Your task to perform on an android device: Search for pizza restaurants on Maps Image 0: 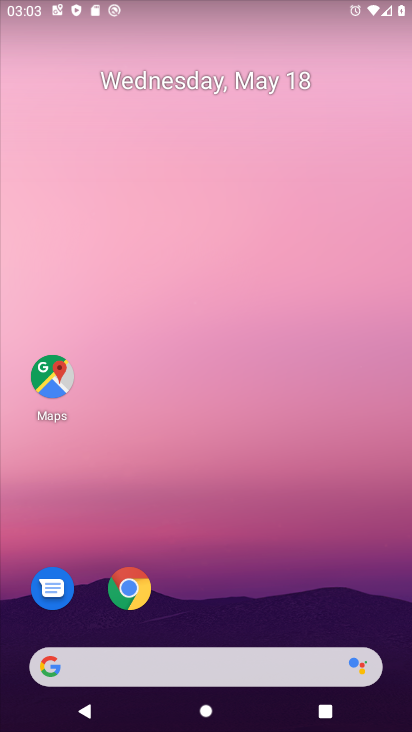
Step 0: click (44, 381)
Your task to perform on an android device: Search for pizza restaurants on Maps Image 1: 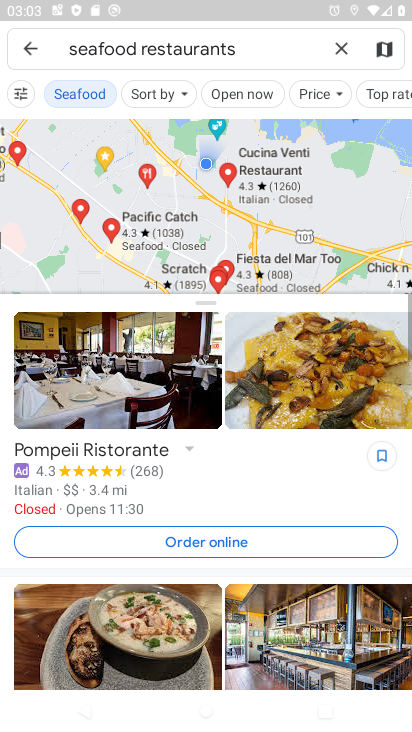
Step 1: click (339, 48)
Your task to perform on an android device: Search for pizza restaurants on Maps Image 2: 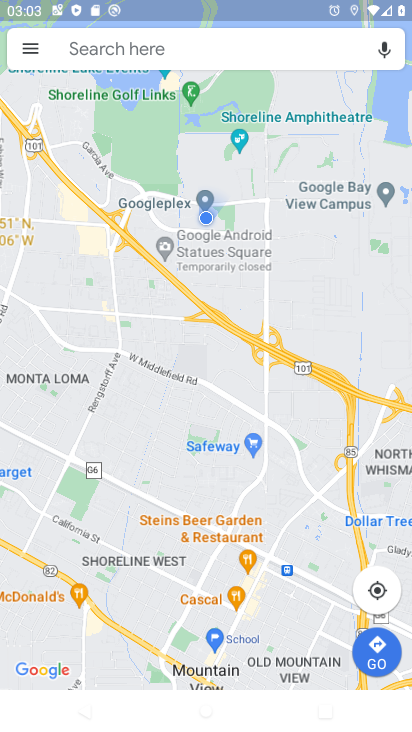
Step 2: click (143, 48)
Your task to perform on an android device: Search for pizza restaurants on Maps Image 3: 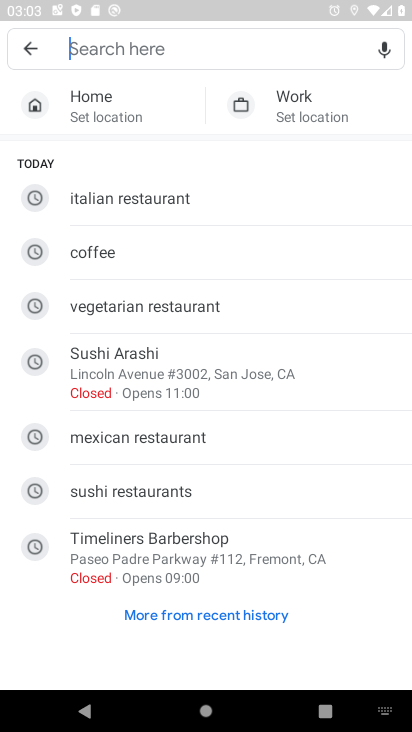
Step 3: click (163, 53)
Your task to perform on an android device: Search for pizza restaurants on Maps Image 4: 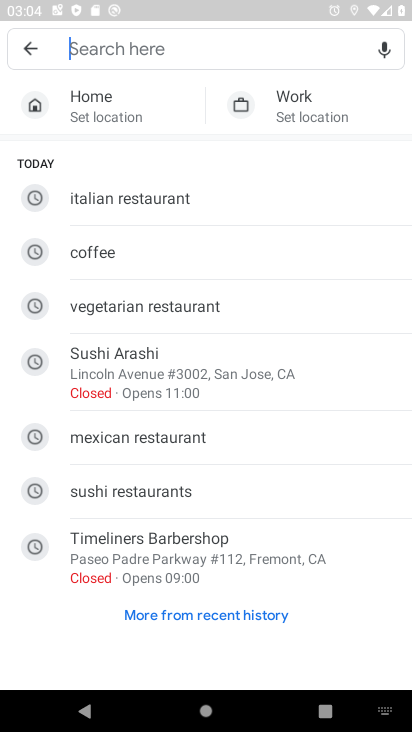
Step 4: type "pizza restaurants"
Your task to perform on an android device: Search for pizza restaurants on Maps Image 5: 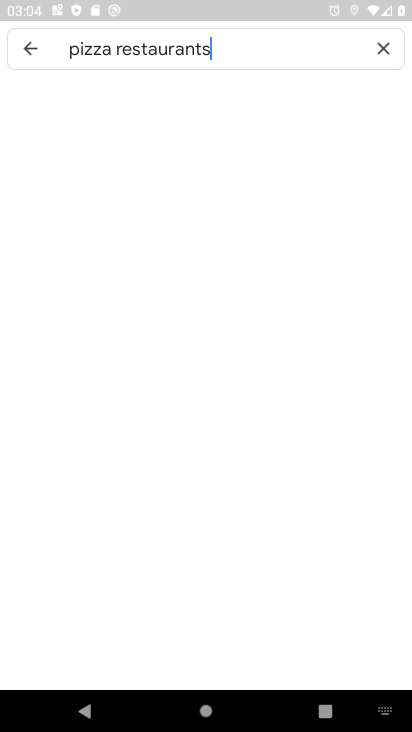
Step 5: type ""
Your task to perform on an android device: Search for pizza restaurants on Maps Image 6: 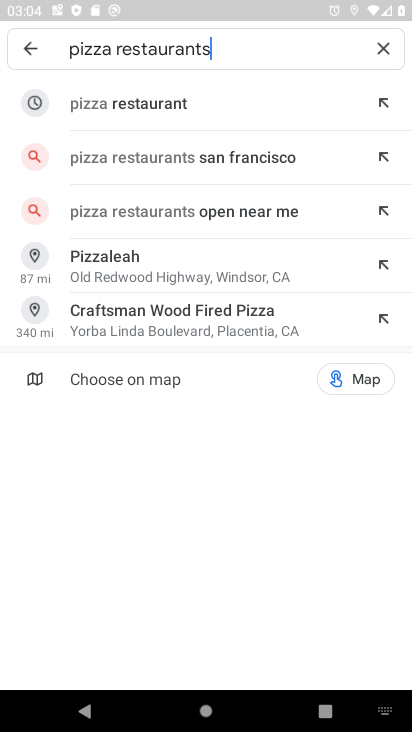
Step 6: click (241, 107)
Your task to perform on an android device: Search for pizza restaurants on Maps Image 7: 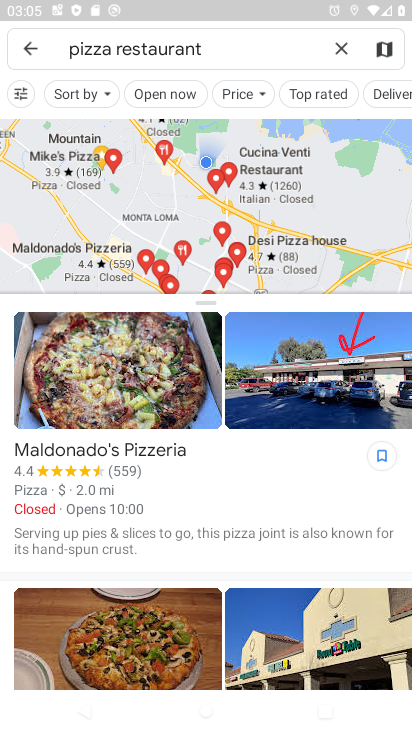
Step 7: task complete